Your task to perform on an android device: manage bookmarks in the chrome app Image 0: 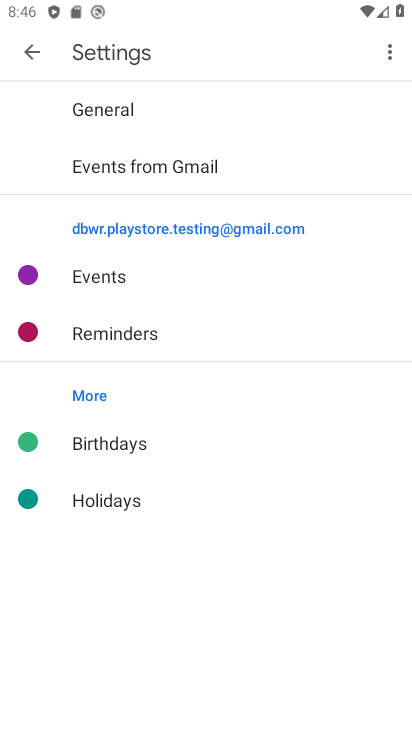
Step 0: press home button
Your task to perform on an android device: manage bookmarks in the chrome app Image 1: 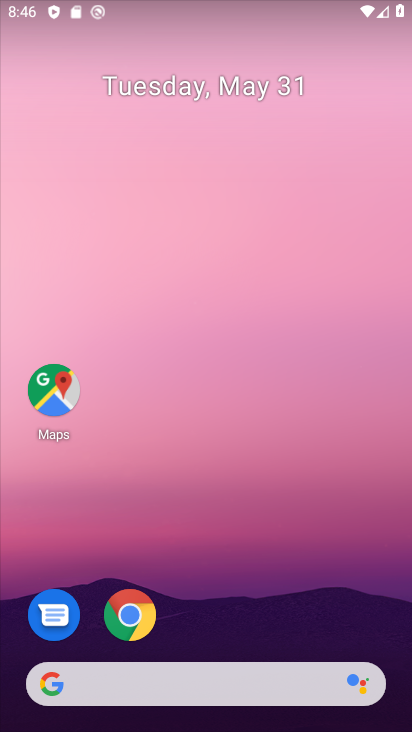
Step 1: click (123, 599)
Your task to perform on an android device: manage bookmarks in the chrome app Image 2: 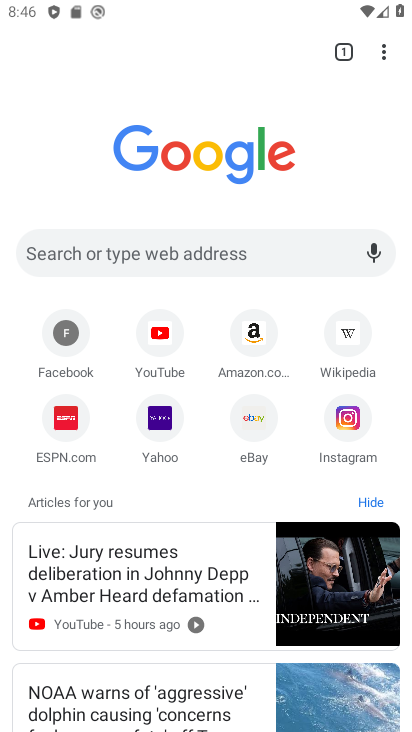
Step 2: click (381, 51)
Your task to perform on an android device: manage bookmarks in the chrome app Image 3: 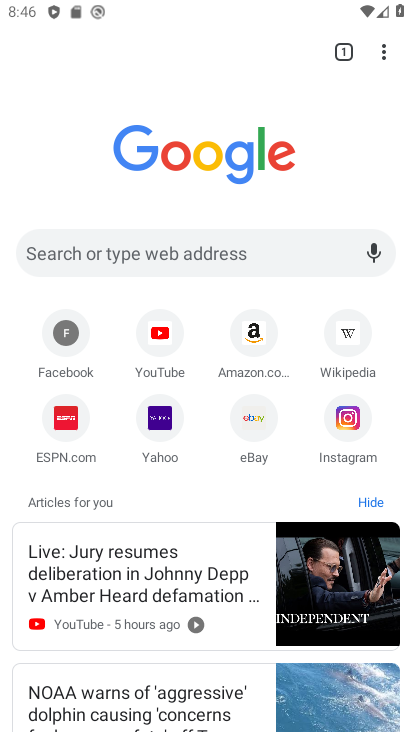
Step 3: task complete